Your task to perform on an android device: Search for vegetarian restaurants on Maps Image 0: 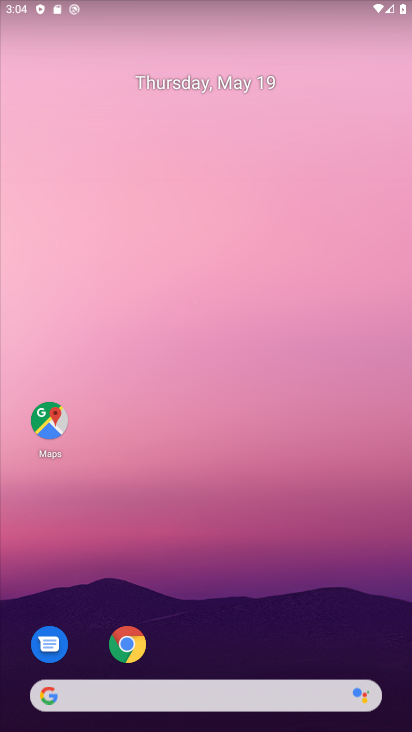
Step 0: click (46, 433)
Your task to perform on an android device: Search for vegetarian restaurants on Maps Image 1: 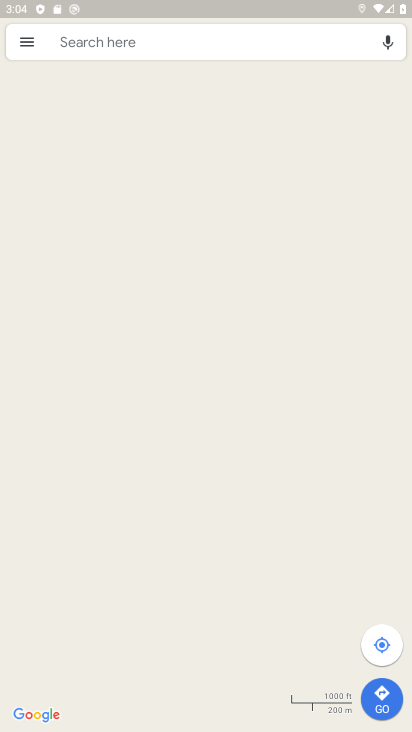
Step 1: click (201, 50)
Your task to perform on an android device: Search for vegetarian restaurants on Maps Image 2: 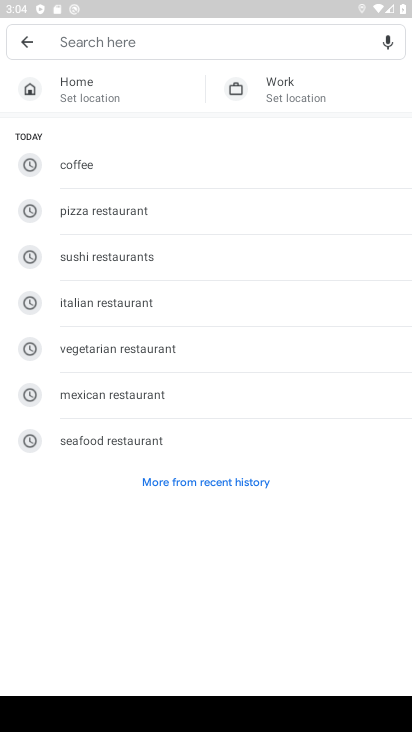
Step 2: click (135, 346)
Your task to perform on an android device: Search for vegetarian restaurants on Maps Image 3: 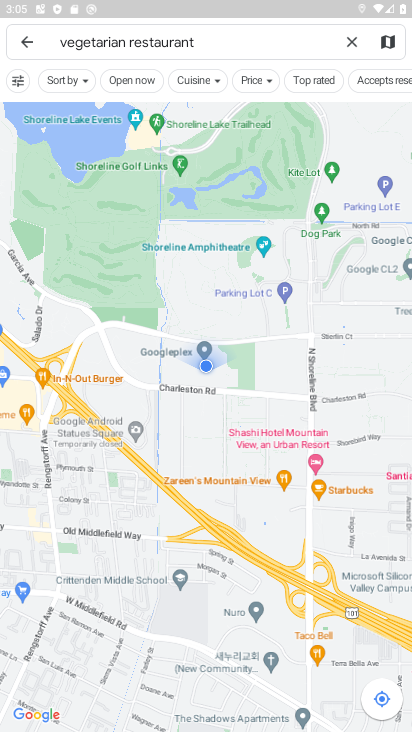
Step 3: task complete